Your task to perform on an android device: When is my next meeting? Image 0: 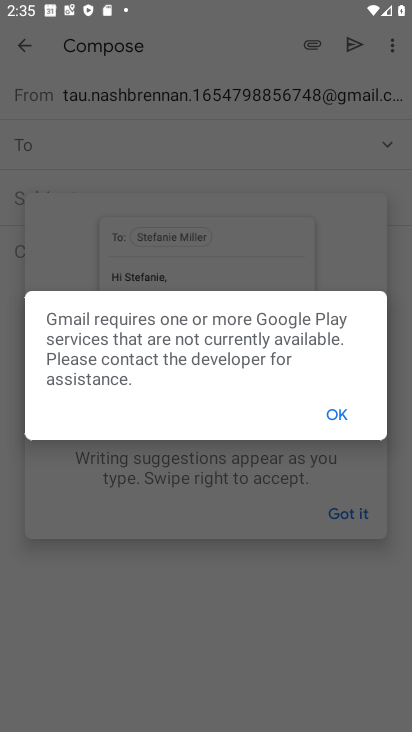
Step 0: press home button
Your task to perform on an android device: When is my next meeting? Image 1: 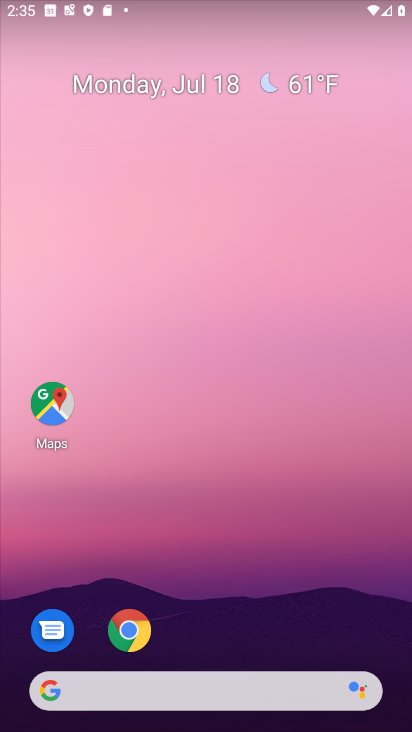
Step 1: drag from (254, 604) to (270, 42)
Your task to perform on an android device: When is my next meeting? Image 2: 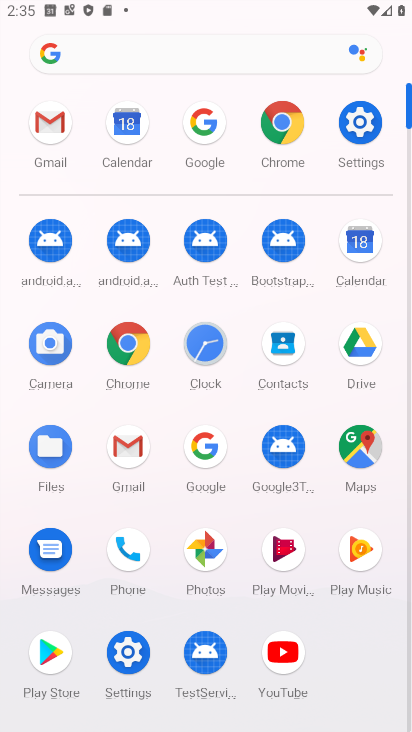
Step 2: click (130, 120)
Your task to perform on an android device: When is my next meeting? Image 3: 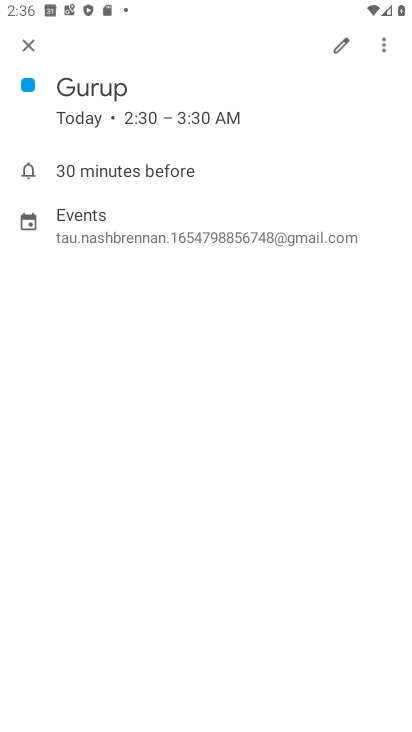
Step 3: click (31, 36)
Your task to perform on an android device: When is my next meeting? Image 4: 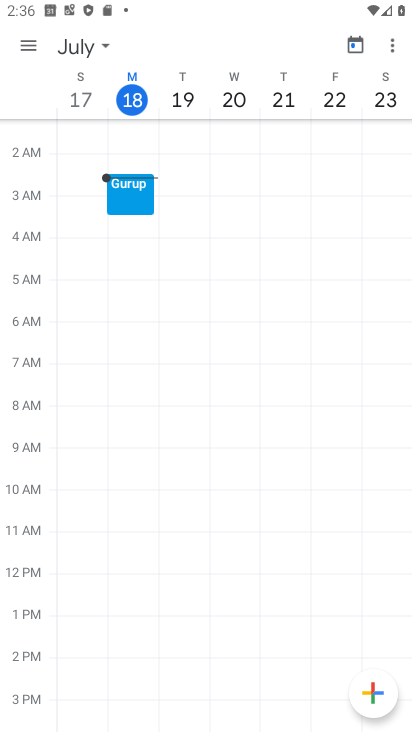
Step 4: click (122, 203)
Your task to perform on an android device: When is my next meeting? Image 5: 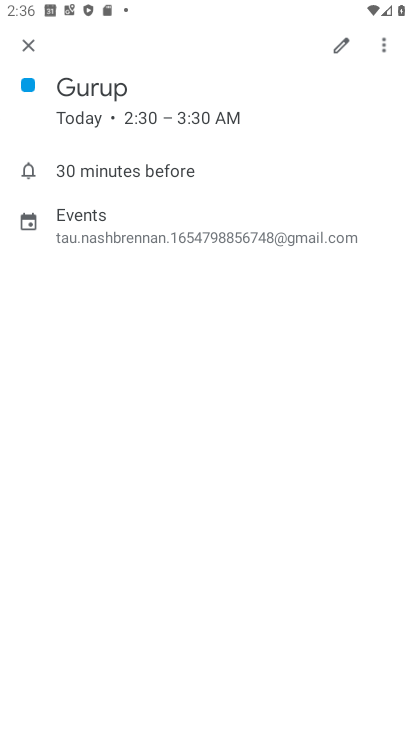
Step 5: task complete